Your task to perform on an android device: Open internet settings Image 0: 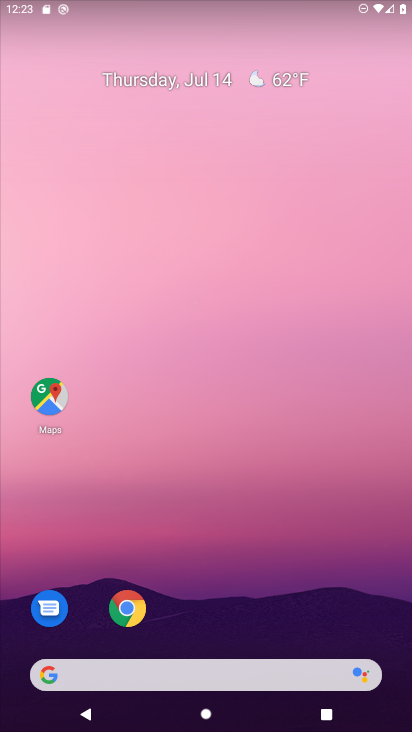
Step 0: drag from (249, 726) to (230, 572)
Your task to perform on an android device: Open internet settings Image 1: 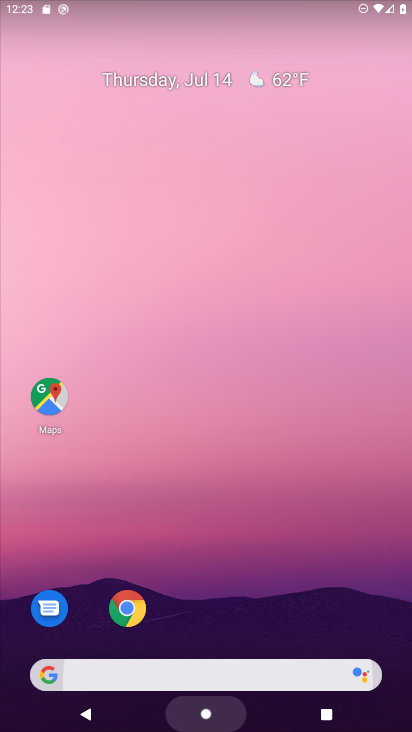
Step 1: drag from (216, 176) to (216, 104)
Your task to perform on an android device: Open internet settings Image 2: 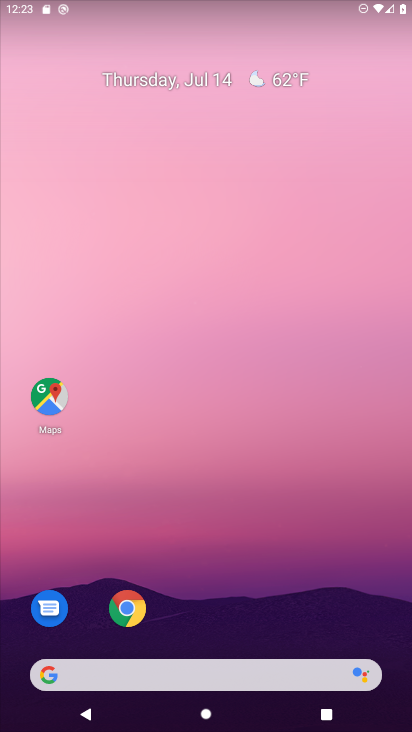
Step 2: drag from (255, 716) to (255, 643)
Your task to perform on an android device: Open internet settings Image 3: 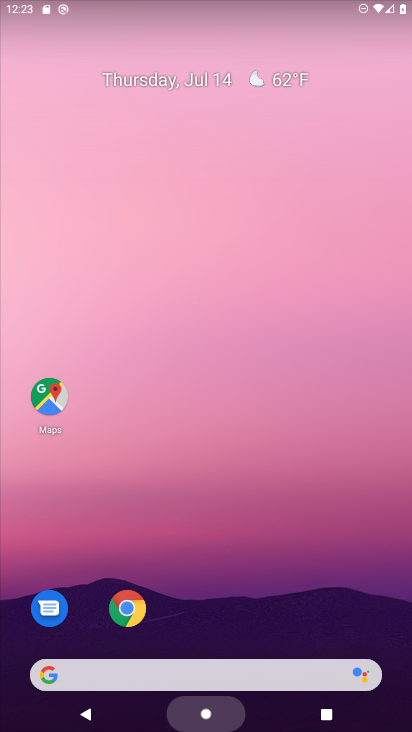
Step 3: click (255, 23)
Your task to perform on an android device: Open internet settings Image 4: 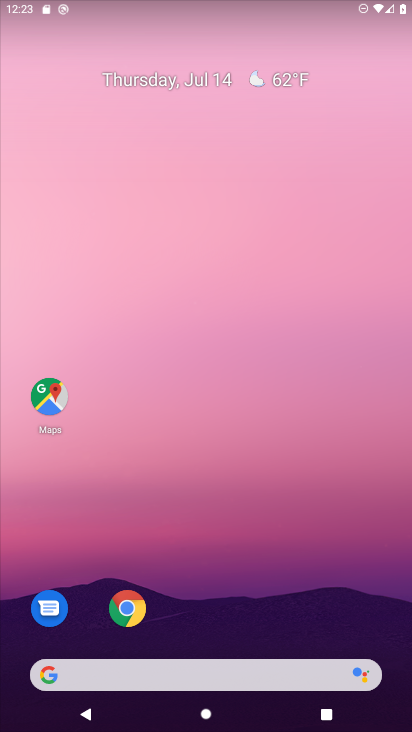
Step 4: drag from (251, 721) to (228, 74)
Your task to perform on an android device: Open internet settings Image 5: 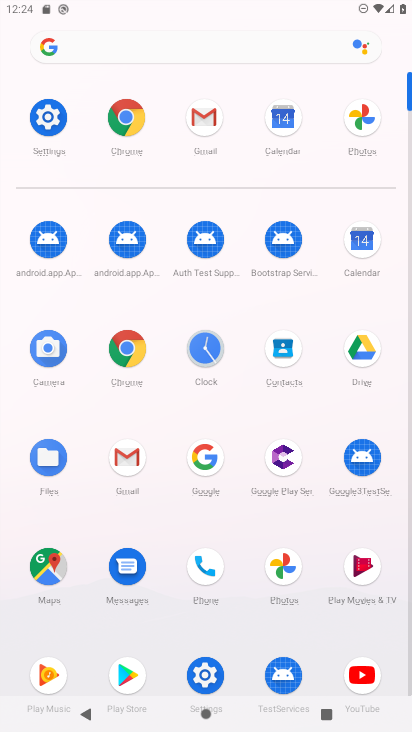
Step 5: click (44, 123)
Your task to perform on an android device: Open internet settings Image 6: 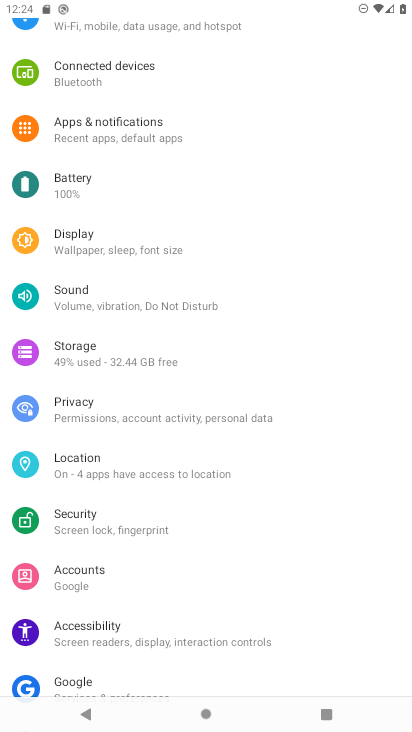
Step 6: drag from (132, 59) to (139, 603)
Your task to perform on an android device: Open internet settings Image 7: 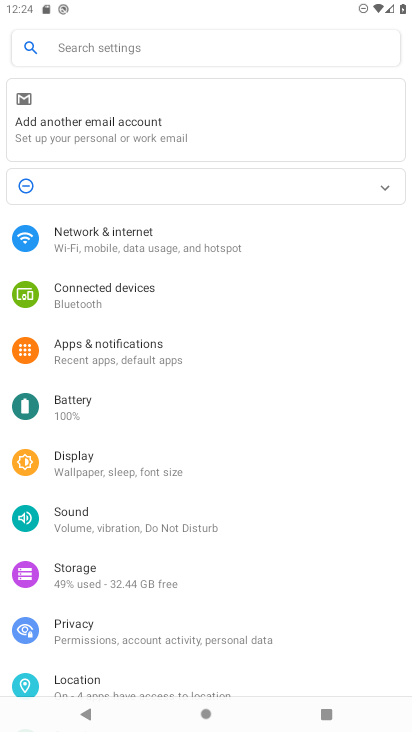
Step 7: click (111, 238)
Your task to perform on an android device: Open internet settings Image 8: 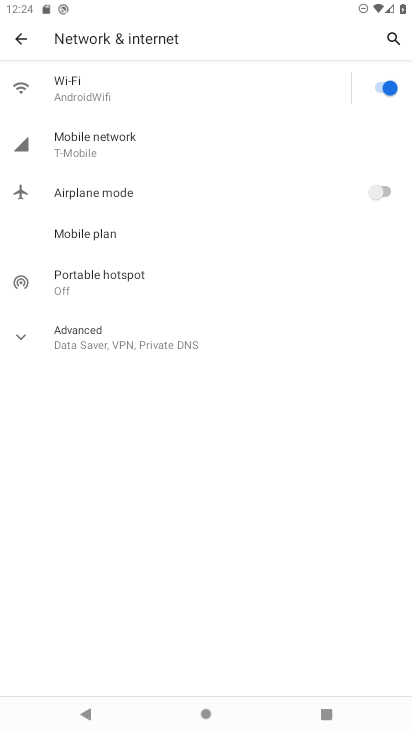
Step 8: task complete